Your task to perform on an android device: Turn off the flashlight Image 0: 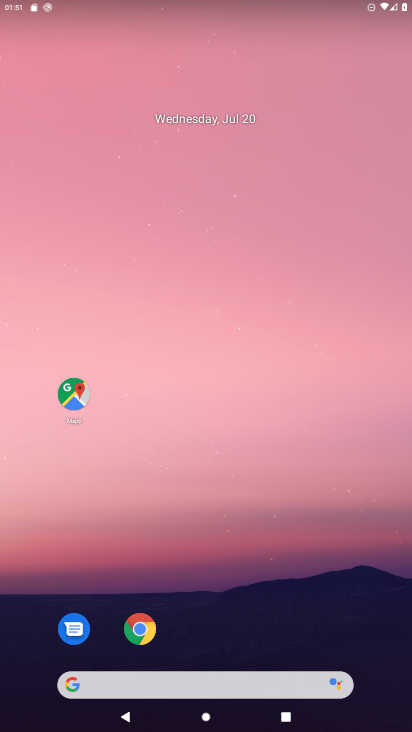
Step 0: drag from (181, 547) to (118, 194)
Your task to perform on an android device: Turn off the flashlight Image 1: 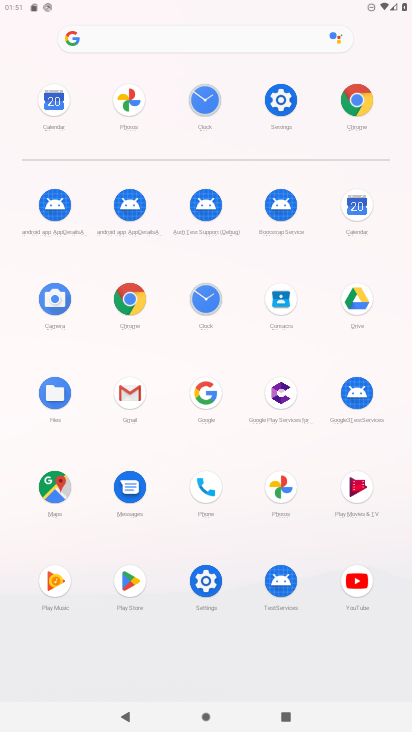
Step 1: click (274, 107)
Your task to perform on an android device: Turn off the flashlight Image 2: 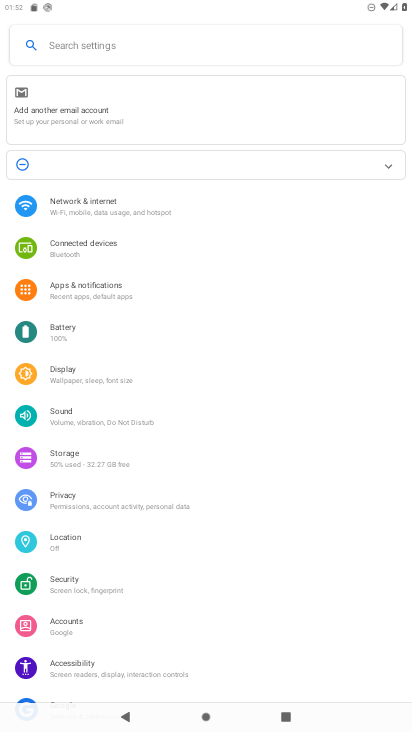
Step 2: task complete